Your task to perform on an android device: Search for Italian restaurants on Maps Image 0: 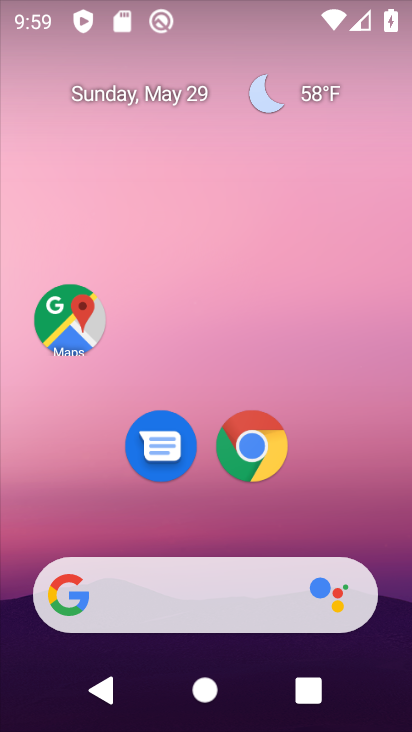
Step 0: drag from (227, 565) to (225, 17)
Your task to perform on an android device: Search for Italian restaurants on Maps Image 1: 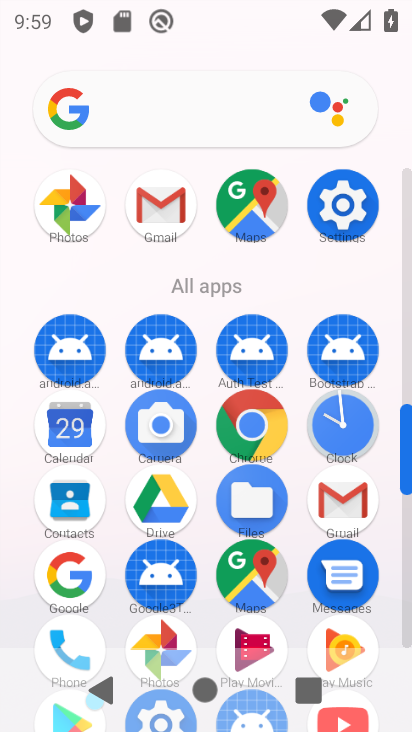
Step 1: click (266, 207)
Your task to perform on an android device: Search for Italian restaurants on Maps Image 2: 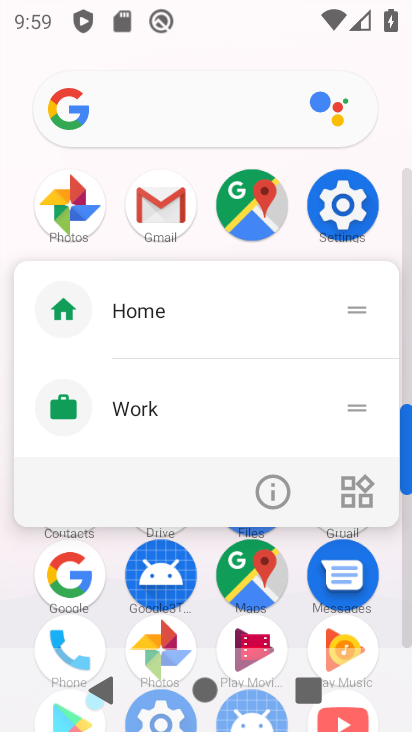
Step 2: click (249, 216)
Your task to perform on an android device: Search for Italian restaurants on Maps Image 3: 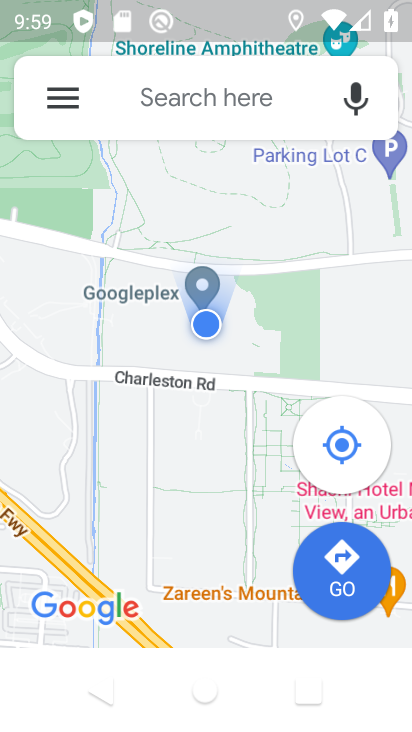
Step 3: click (152, 104)
Your task to perform on an android device: Search for Italian restaurants on Maps Image 4: 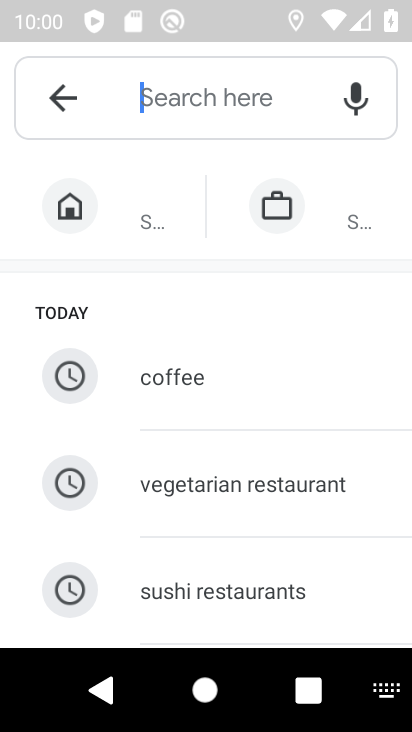
Step 4: drag from (215, 593) to (196, 62)
Your task to perform on an android device: Search for Italian restaurants on Maps Image 5: 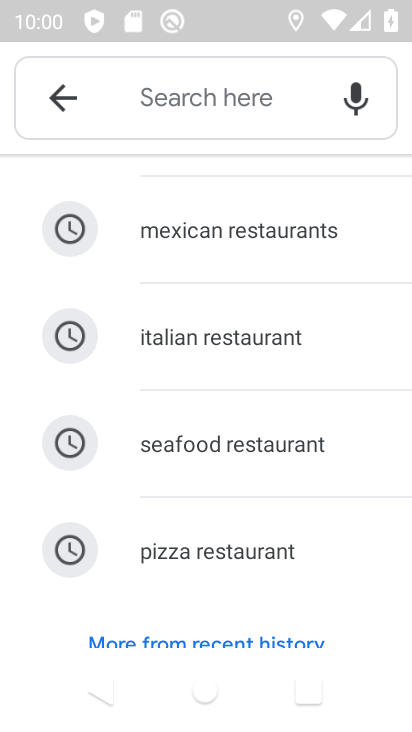
Step 5: click (217, 345)
Your task to perform on an android device: Search for Italian restaurants on Maps Image 6: 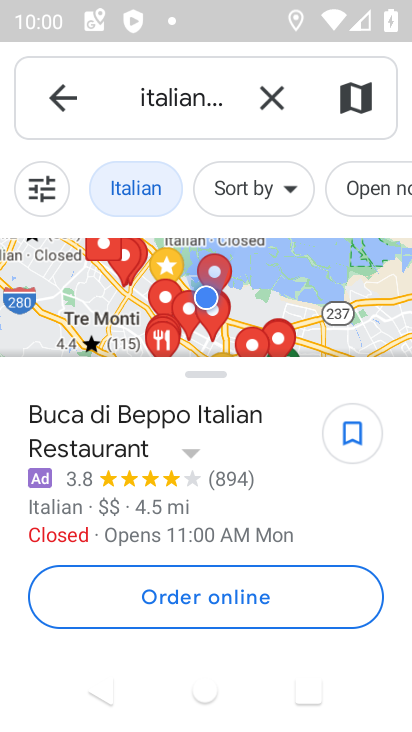
Step 6: task complete